Your task to perform on an android device: Go to Google Image 0: 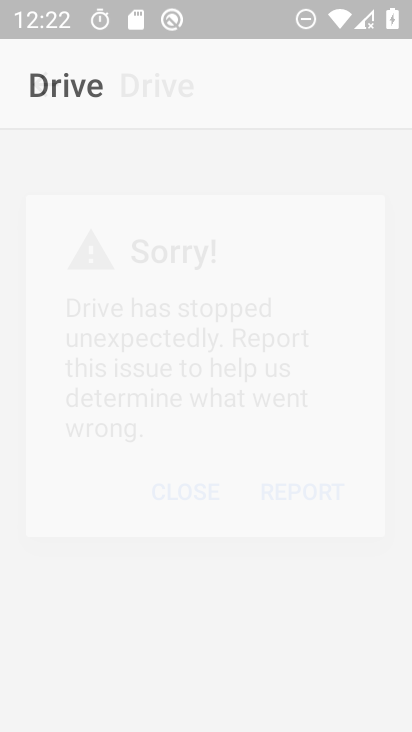
Step 0: drag from (310, 576) to (347, 178)
Your task to perform on an android device: Go to Google Image 1: 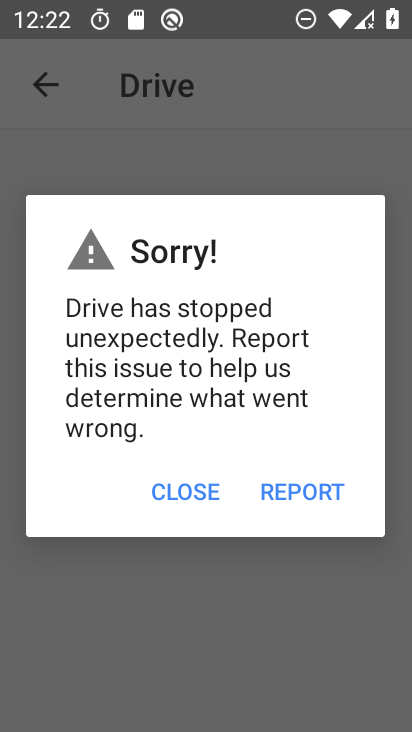
Step 1: press home button
Your task to perform on an android device: Go to Google Image 2: 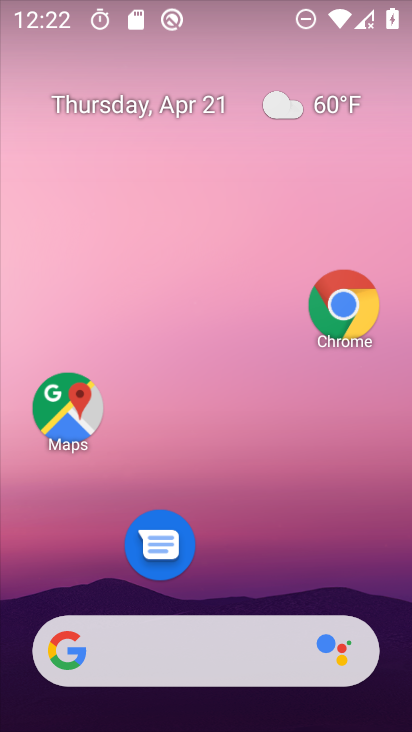
Step 2: drag from (257, 611) to (295, 69)
Your task to perform on an android device: Go to Google Image 3: 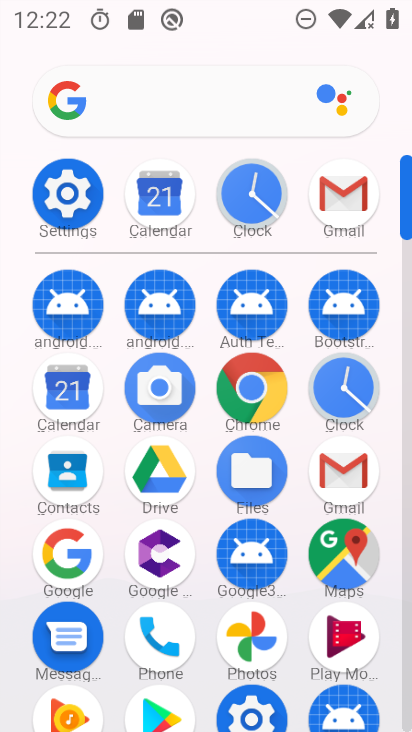
Step 3: click (77, 571)
Your task to perform on an android device: Go to Google Image 4: 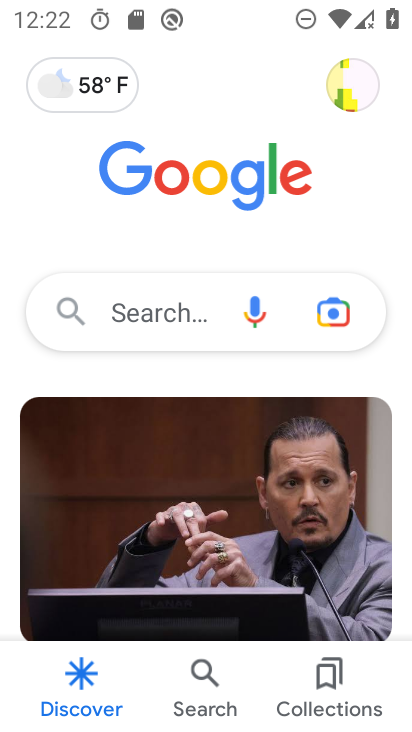
Step 4: task complete